Your task to perform on an android device: What's the weather going to be tomorrow? Image 0: 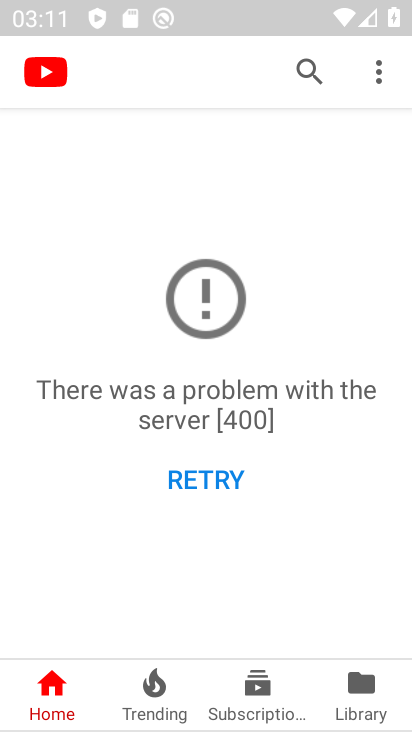
Step 0: press back button
Your task to perform on an android device: What's the weather going to be tomorrow? Image 1: 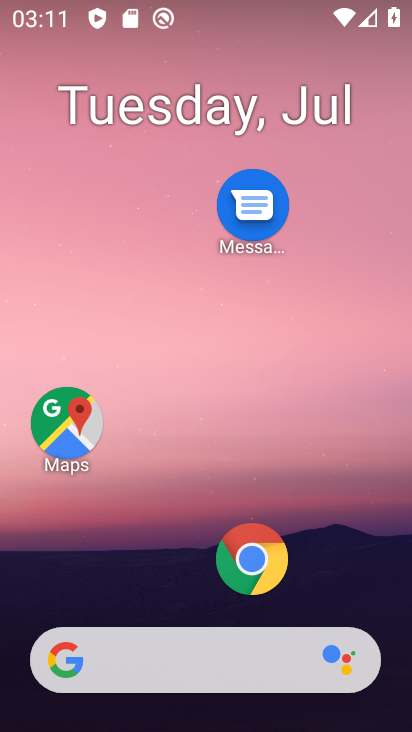
Step 1: click (159, 650)
Your task to perform on an android device: What's the weather going to be tomorrow? Image 2: 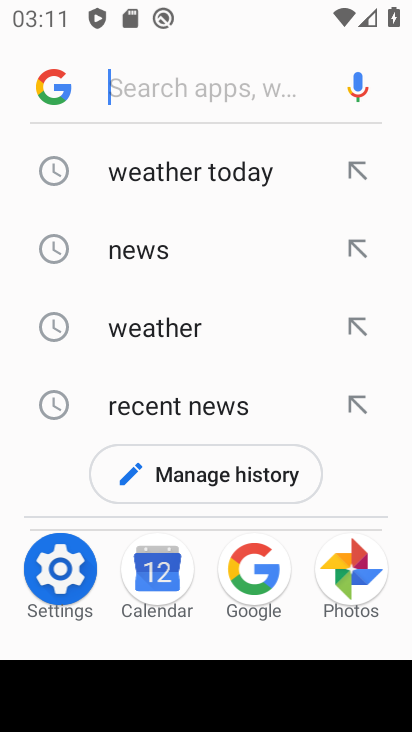
Step 2: click (142, 329)
Your task to perform on an android device: What's the weather going to be tomorrow? Image 3: 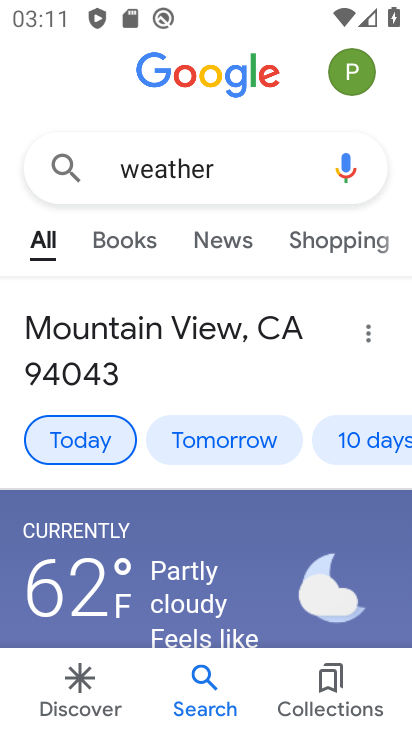
Step 3: click (215, 442)
Your task to perform on an android device: What's the weather going to be tomorrow? Image 4: 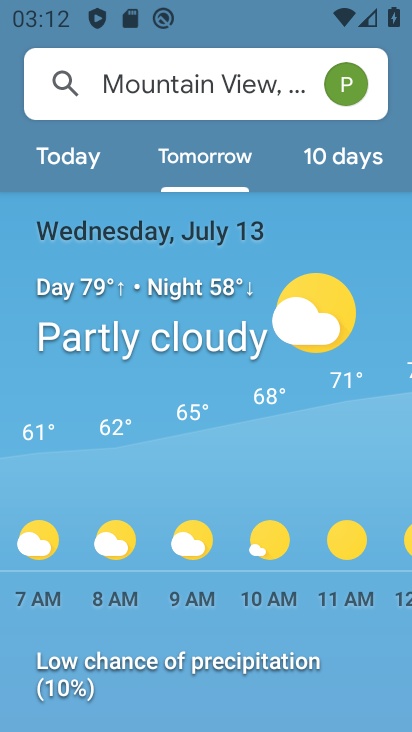
Step 4: task complete